Your task to perform on an android device: Open calendar and show me the first week of next month Image 0: 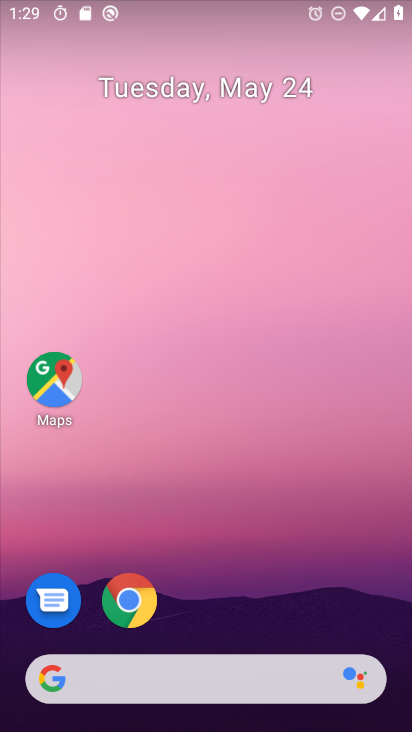
Step 0: drag from (302, 616) to (254, 171)
Your task to perform on an android device: Open calendar and show me the first week of next month Image 1: 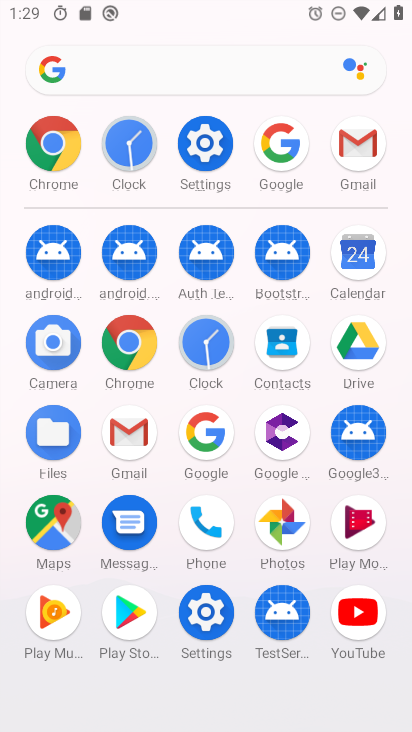
Step 1: click (356, 259)
Your task to perform on an android device: Open calendar and show me the first week of next month Image 2: 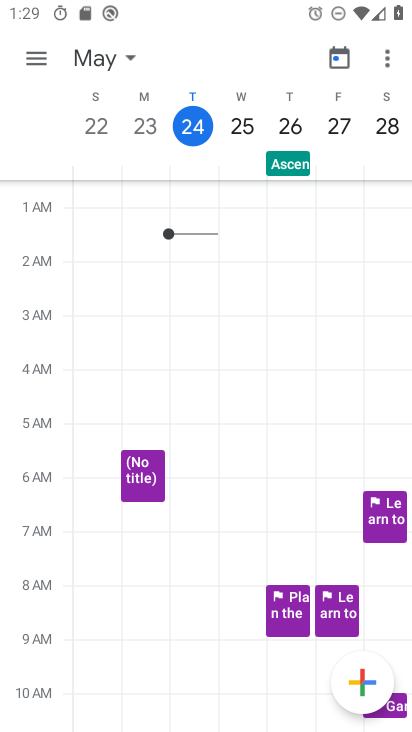
Step 2: click (81, 58)
Your task to perform on an android device: Open calendar and show me the first week of next month Image 3: 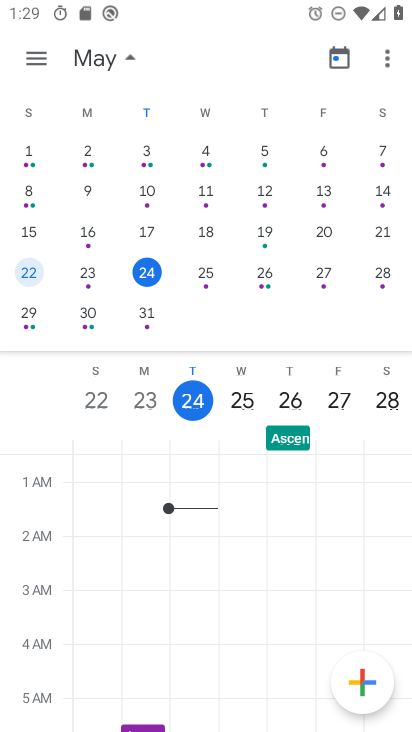
Step 3: drag from (374, 219) to (13, 222)
Your task to perform on an android device: Open calendar and show me the first week of next month Image 4: 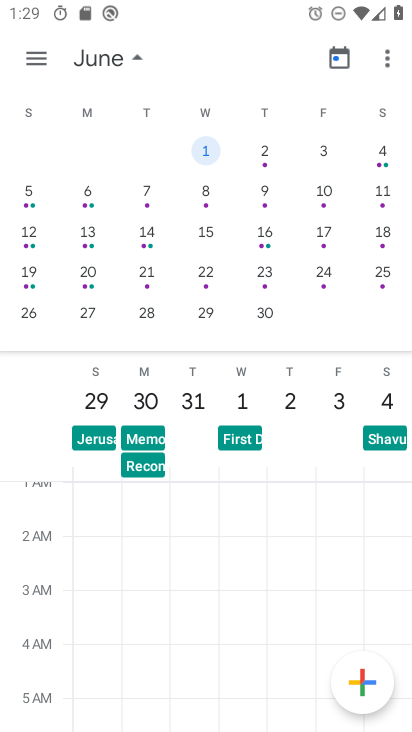
Step 4: click (148, 190)
Your task to perform on an android device: Open calendar and show me the first week of next month Image 5: 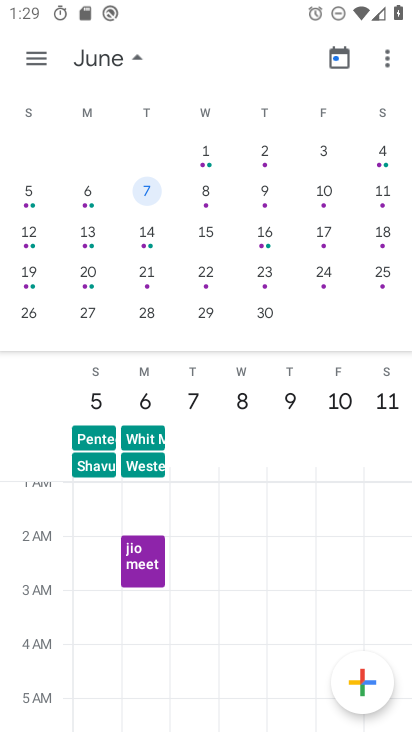
Step 5: click (23, 189)
Your task to perform on an android device: Open calendar and show me the first week of next month Image 6: 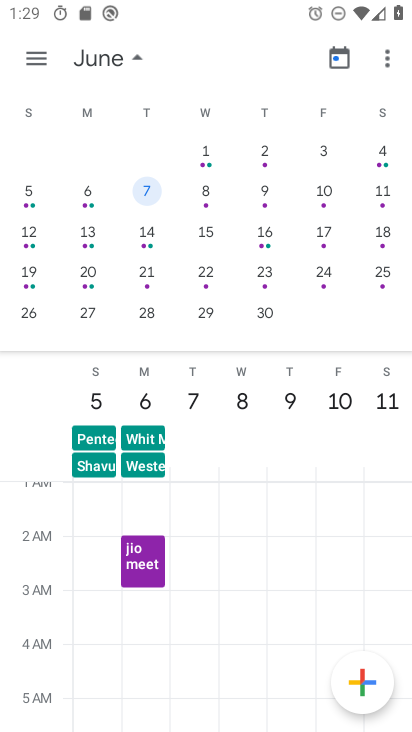
Step 6: task complete